Your task to perform on an android device: open wifi settings Image 0: 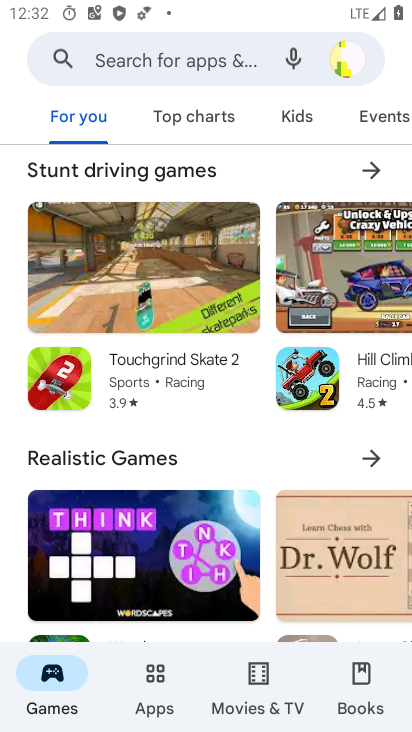
Step 0: press home button
Your task to perform on an android device: open wifi settings Image 1: 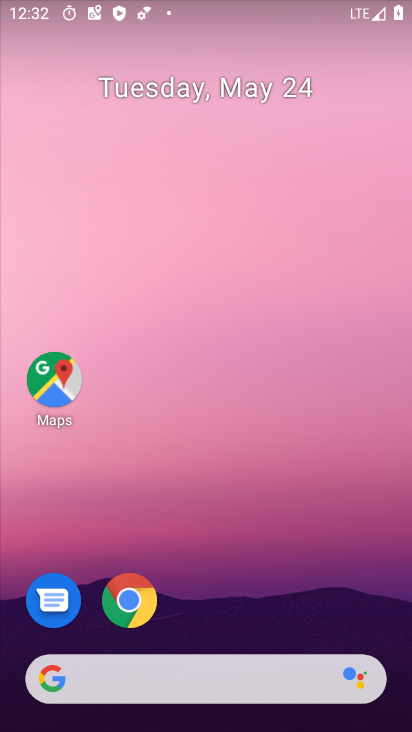
Step 1: drag from (280, 547) to (235, 158)
Your task to perform on an android device: open wifi settings Image 2: 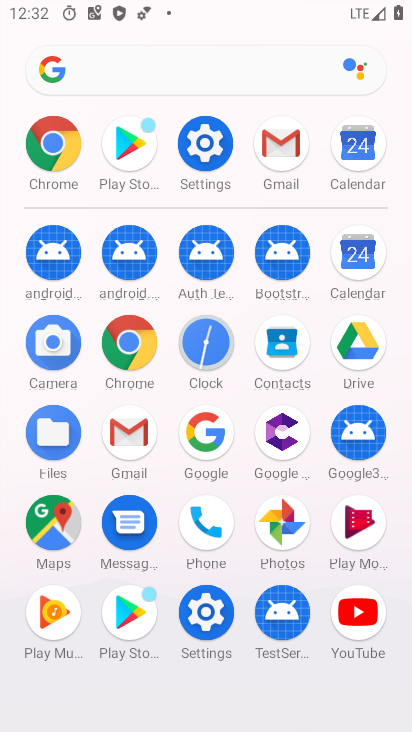
Step 2: click (204, 143)
Your task to perform on an android device: open wifi settings Image 3: 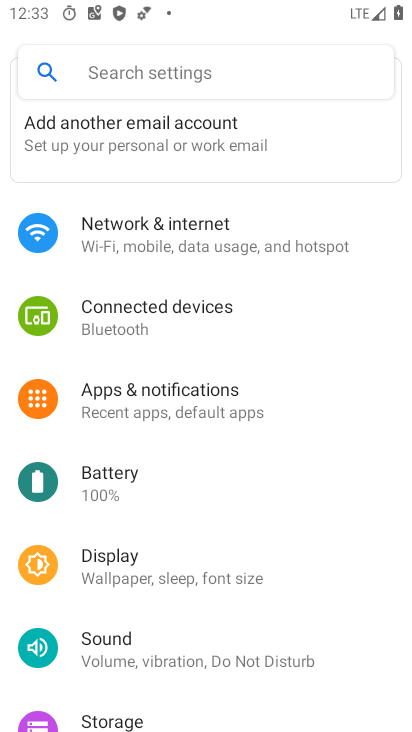
Step 3: click (154, 218)
Your task to perform on an android device: open wifi settings Image 4: 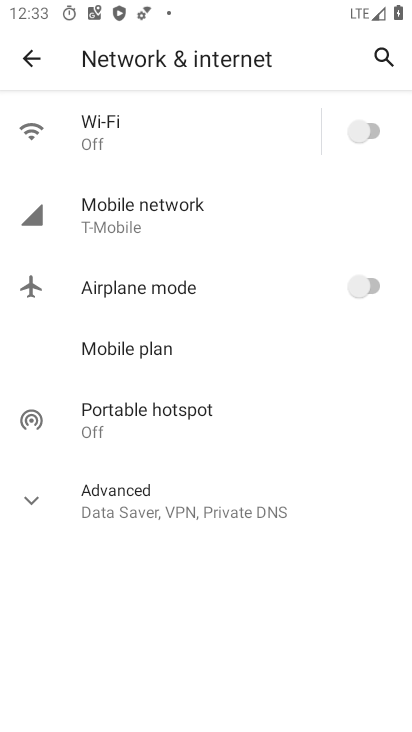
Step 4: click (287, 118)
Your task to perform on an android device: open wifi settings Image 5: 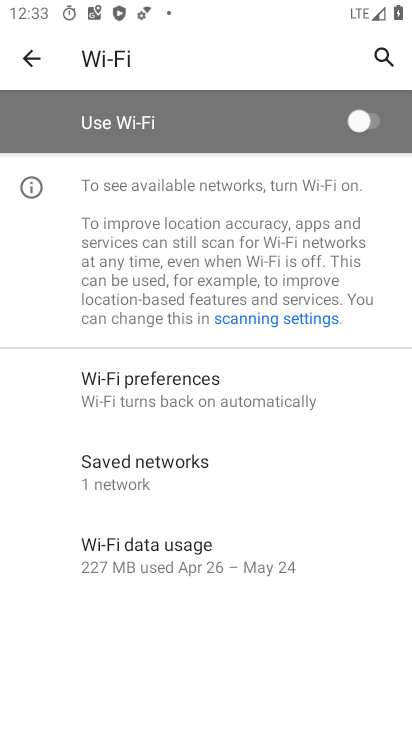
Step 5: click (388, 121)
Your task to perform on an android device: open wifi settings Image 6: 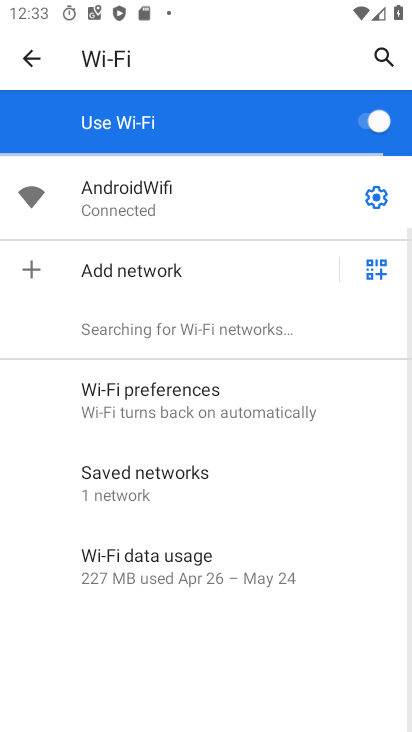
Step 6: click (383, 186)
Your task to perform on an android device: open wifi settings Image 7: 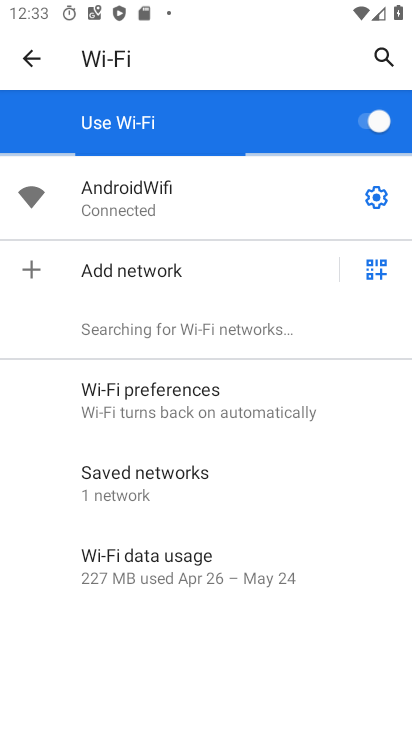
Step 7: task complete